Your task to perform on an android device: snooze an email in the gmail app Image 0: 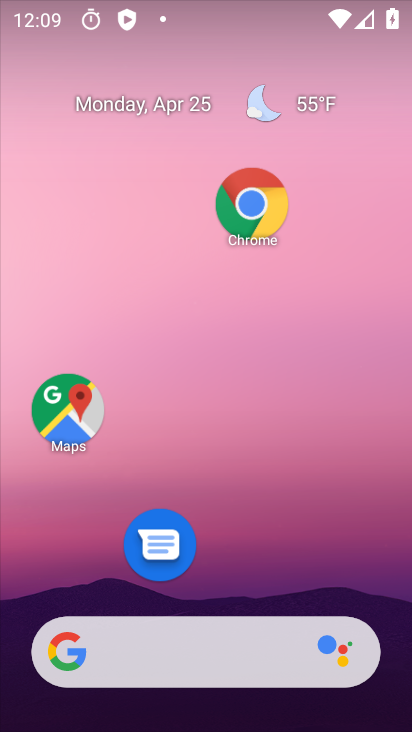
Step 0: drag from (285, 673) to (336, 171)
Your task to perform on an android device: snooze an email in the gmail app Image 1: 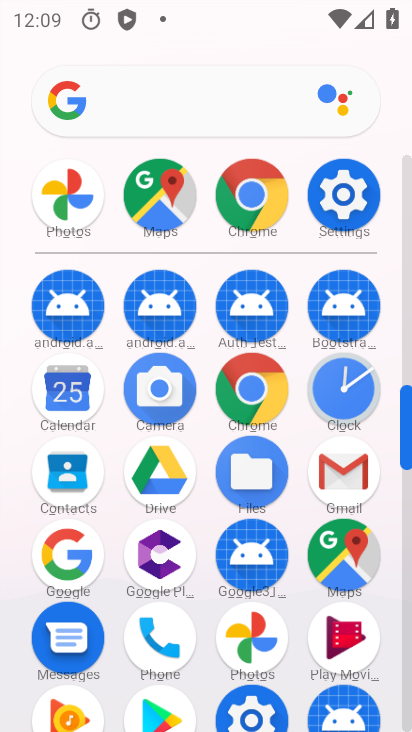
Step 1: click (335, 473)
Your task to perform on an android device: snooze an email in the gmail app Image 2: 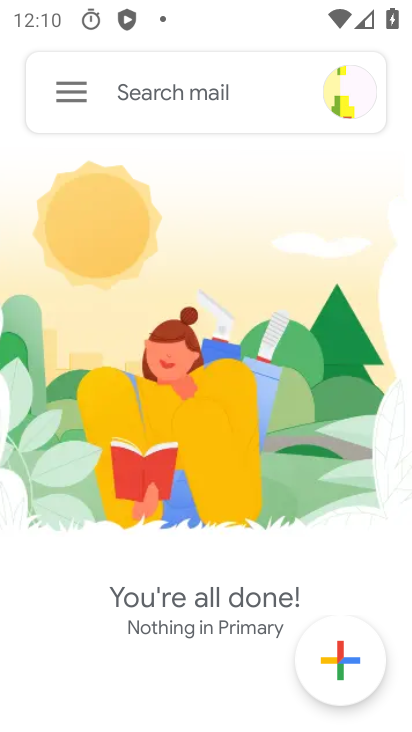
Step 2: click (60, 101)
Your task to perform on an android device: snooze an email in the gmail app Image 3: 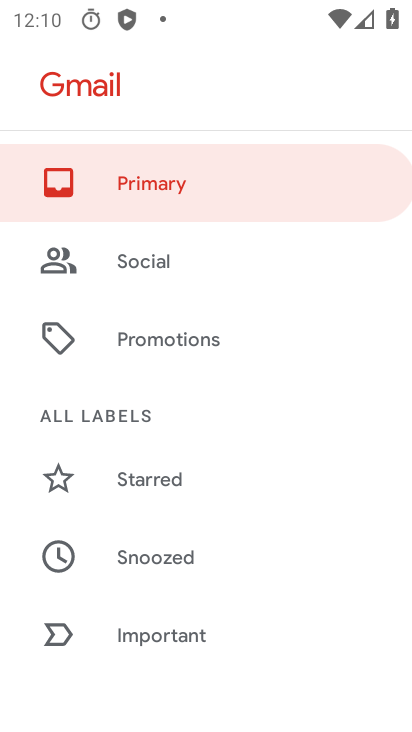
Step 3: click (136, 553)
Your task to perform on an android device: snooze an email in the gmail app Image 4: 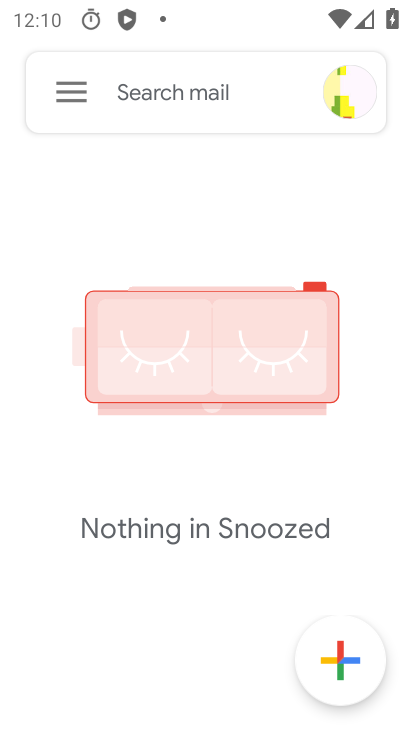
Step 4: click (68, 109)
Your task to perform on an android device: snooze an email in the gmail app Image 5: 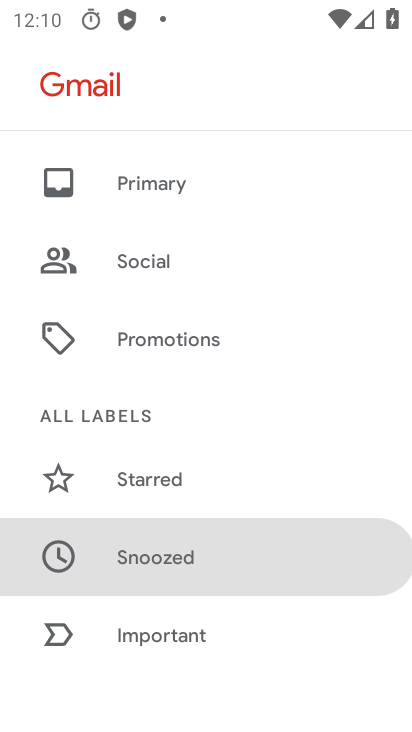
Step 5: drag from (129, 482) to (174, 268)
Your task to perform on an android device: snooze an email in the gmail app Image 6: 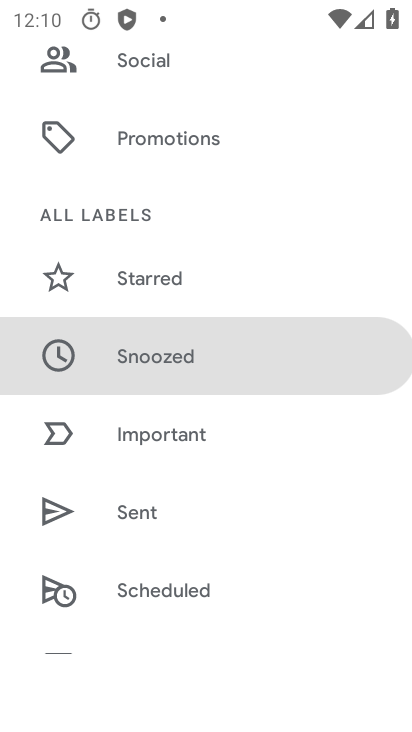
Step 6: click (201, 354)
Your task to perform on an android device: snooze an email in the gmail app Image 7: 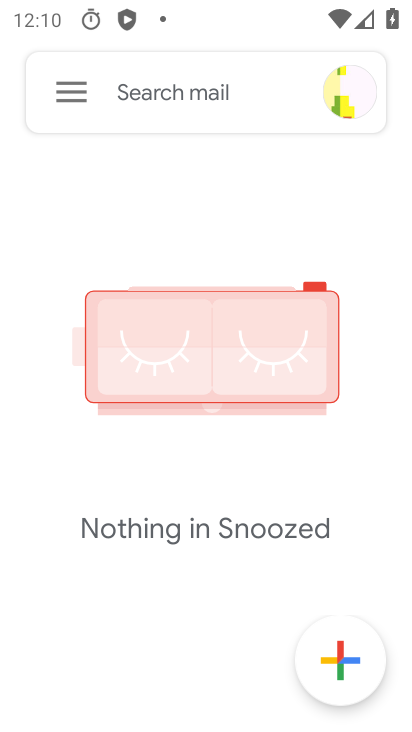
Step 7: task complete